Your task to perform on an android device: Open settings on Google Maps Image 0: 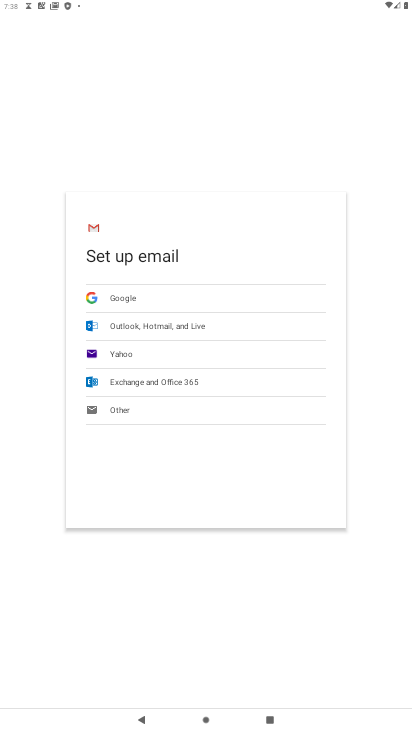
Step 0: press home button
Your task to perform on an android device: Open settings on Google Maps Image 1: 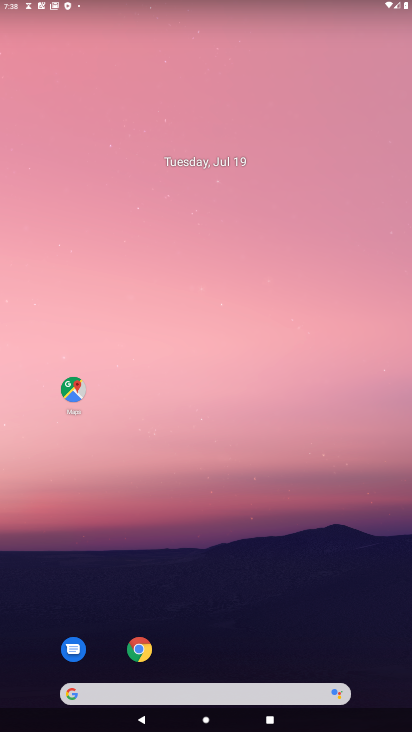
Step 1: click (74, 389)
Your task to perform on an android device: Open settings on Google Maps Image 2: 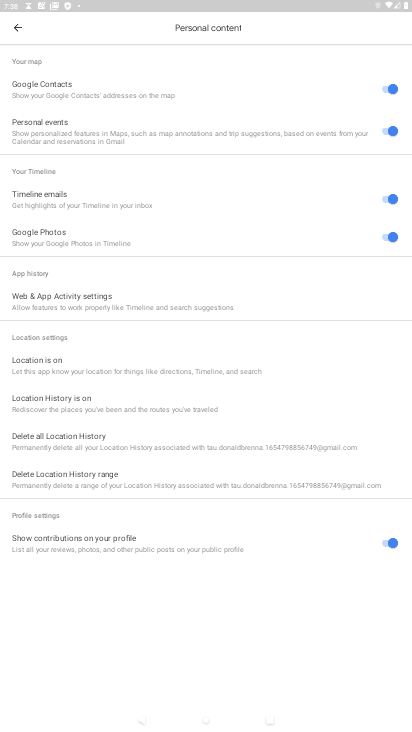
Step 2: press back button
Your task to perform on an android device: Open settings on Google Maps Image 3: 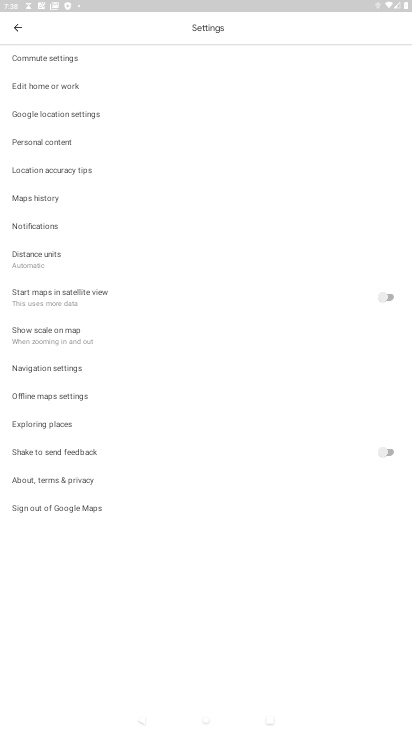
Step 3: press back button
Your task to perform on an android device: Open settings on Google Maps Image 4: 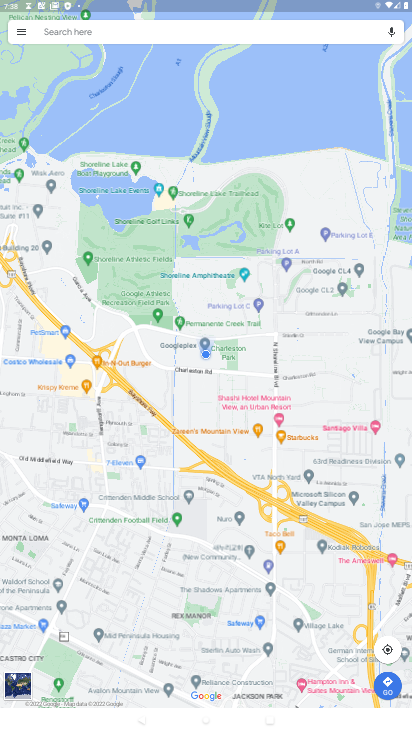
Step 4: click (19, 35)
Your task to perform on an android device: Open settings on Google Maps Image 5: 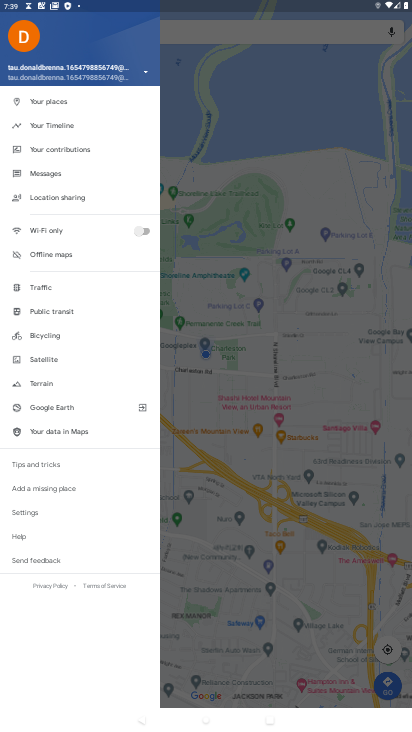
Step 5: click (30, 511)
Your task to perform on an android device: Open settings on Google Maps Image 6: 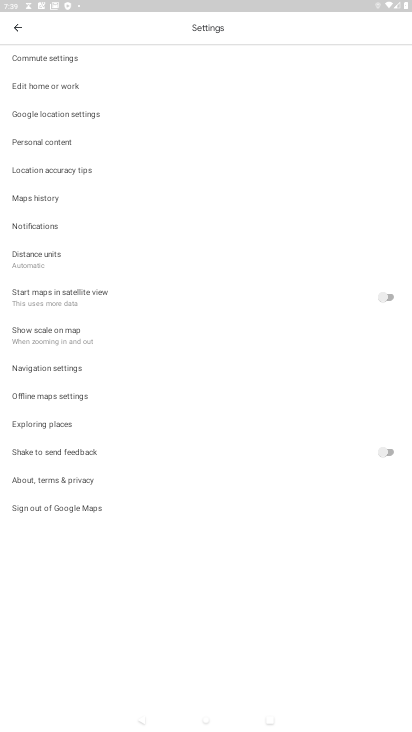
Step 6: task complete